Your task to perform on an android device: Search for Mexican restaurants on Maps Image 0: 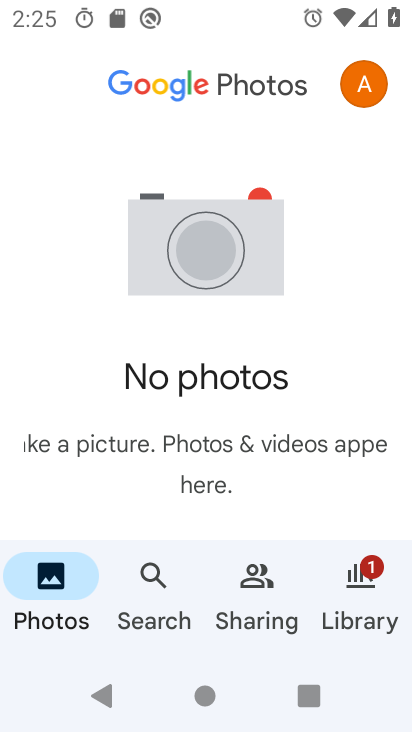
Step 0: press home button
Your task to perform on an android device: Search for Mexican restaurants on Maps Image 1: 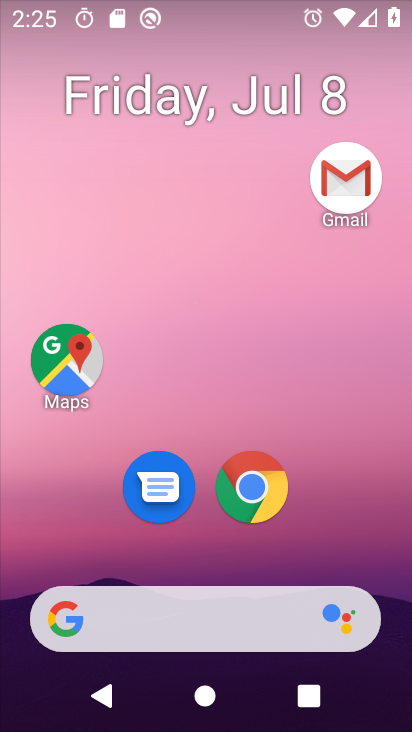
Step 1: drag from (366, 530) to (364, 175)
Your task to perform on an android device: Search for Mexican restaurants on Maps Image 2: 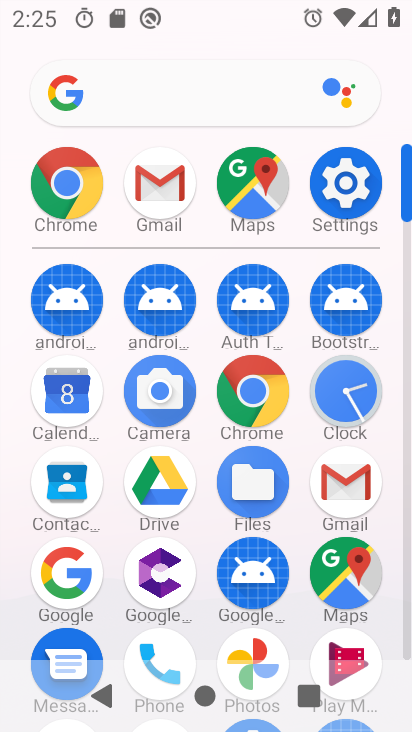
Step 2: click (339, 577)
Your task to perform on an android device: Search for Mexican restaurants on Maps Image 3: 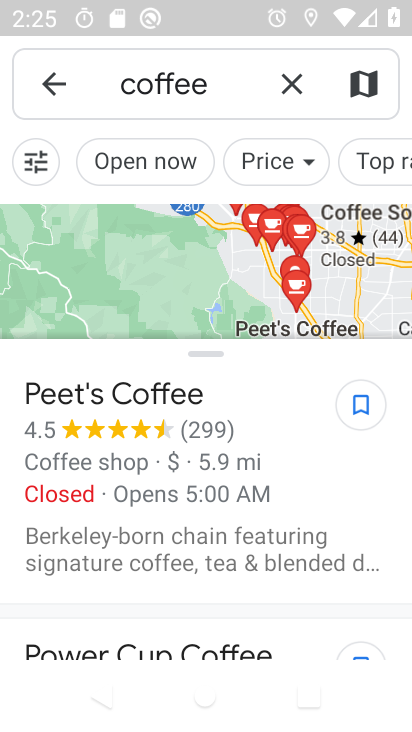
Step 3: press back button
Your task to perform on an android device: Search for Mexican restaurants on Maps Image 4: 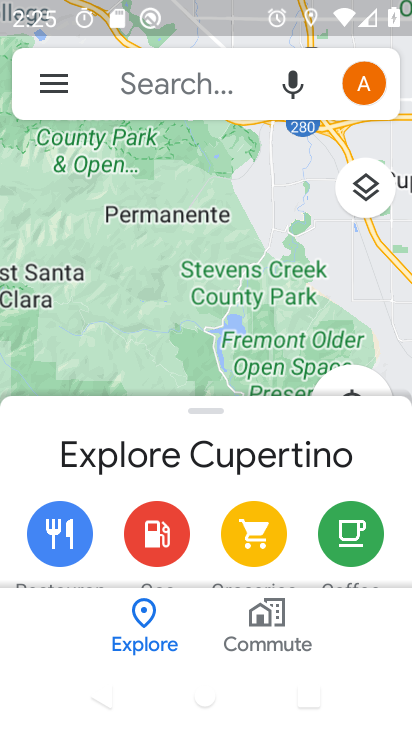
Step 4: click (193, 104)
Your task to perform on an android device: Search for Mexican restaurants on Maps Image 5: 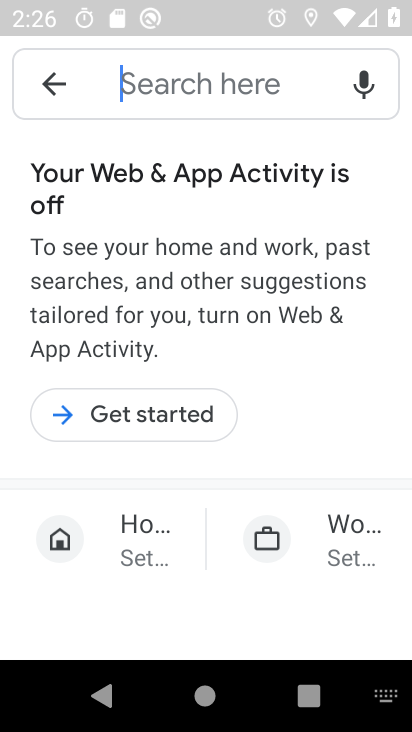
Step 5: type "mexican restaurants"
Your task to perform on an android device: Search for Mexican restaurants on Maps Image 6: 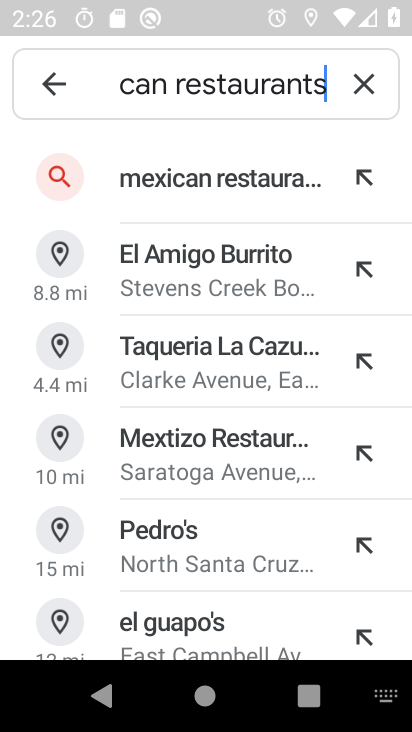
Step 6: click (192, 197)
Your task to perform on an android device: Search for Mexican restaurants on Maps Image 7: 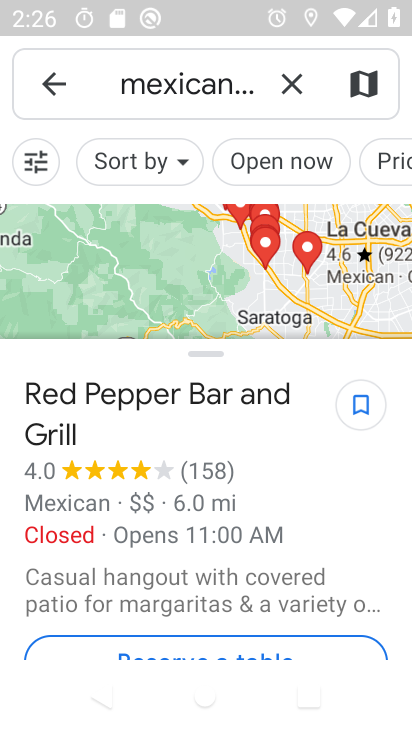
Step 7: task complete